Your task to perform on an android device: Go to sound settings Image 0: 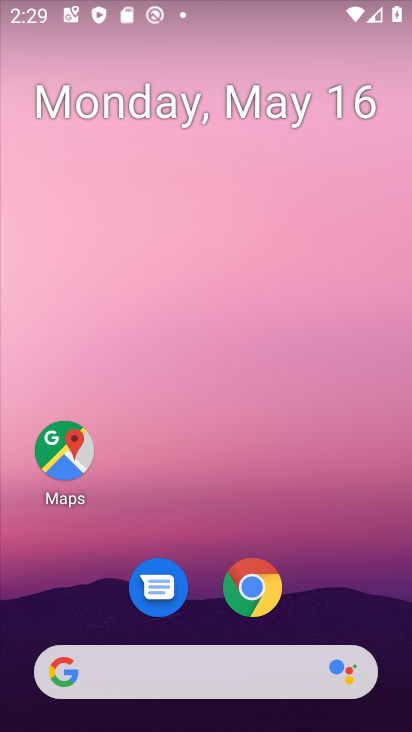
Step 0: drag from (385, 627) to (101, 4)
Your task to perform on an android device: Go to sound settings Image 1: 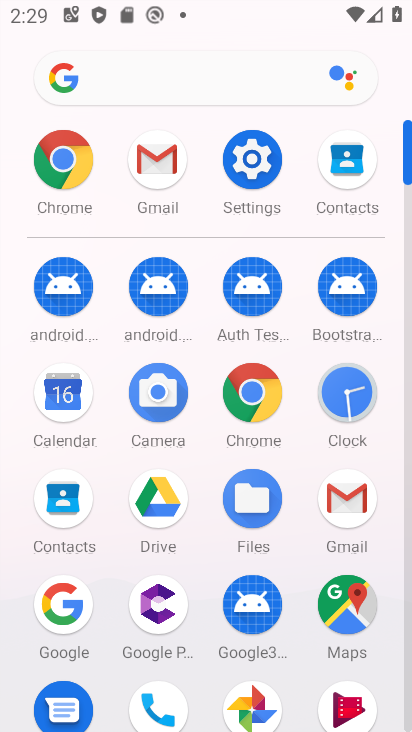
Step 1: click (243, 159)
Your task to perform on an android device: Go to sound settings Image 2: 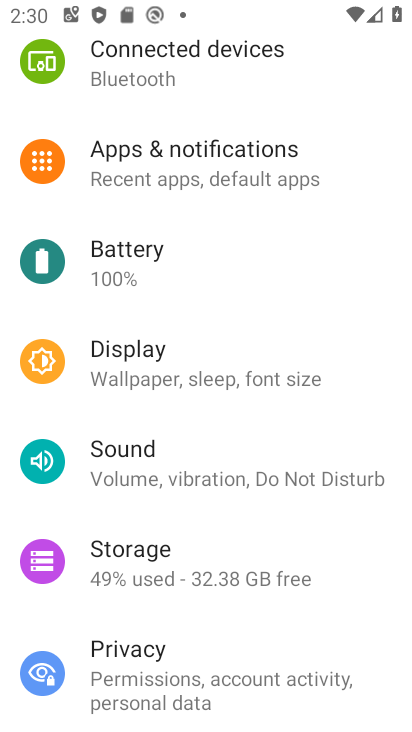
Step 2: click (140, 470)
Your task to perform on an android device: Go to sound settings Image 3: 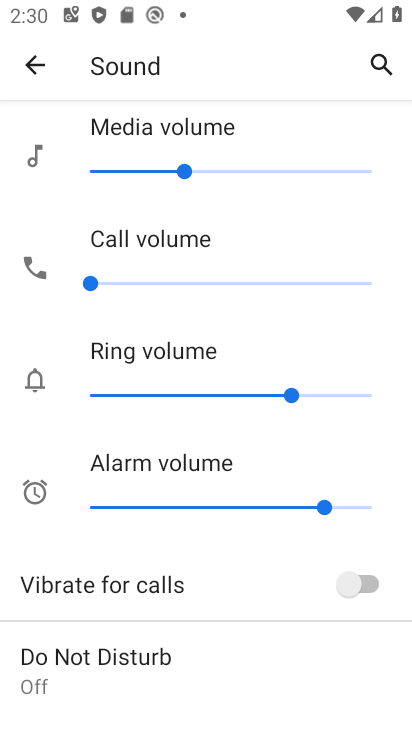
Step 3: task complete